Your task to perform on an android device: Open Google Chrome Image 0: 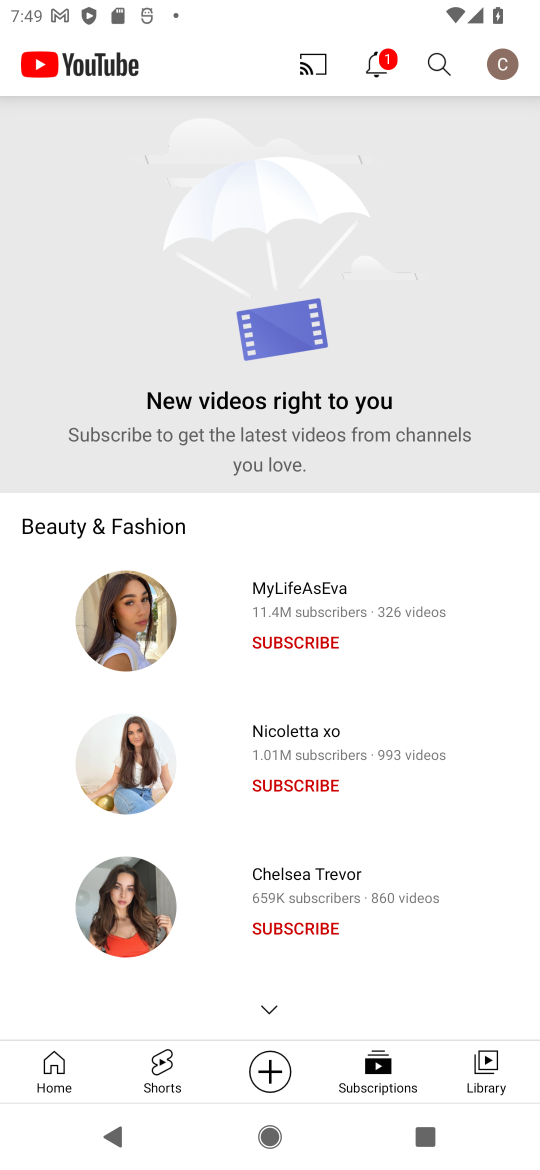
Step 0: press home button
Your task to perform on an android device: Open Google Chrome Image 1: 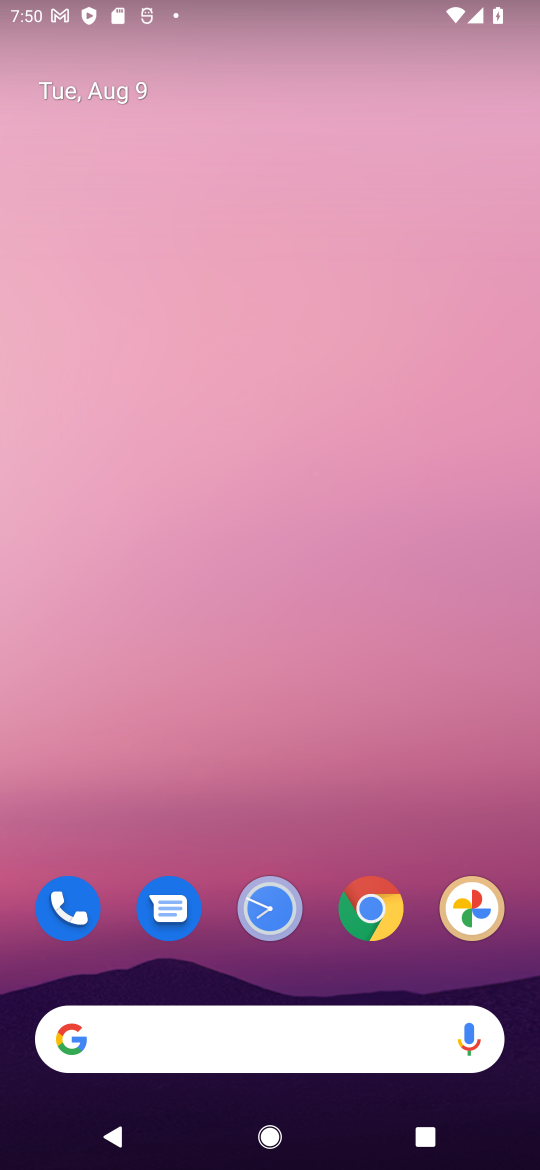
Step 1: click (371, 900)
Your task to perform on an android device: Open Google Chrome Image 2: 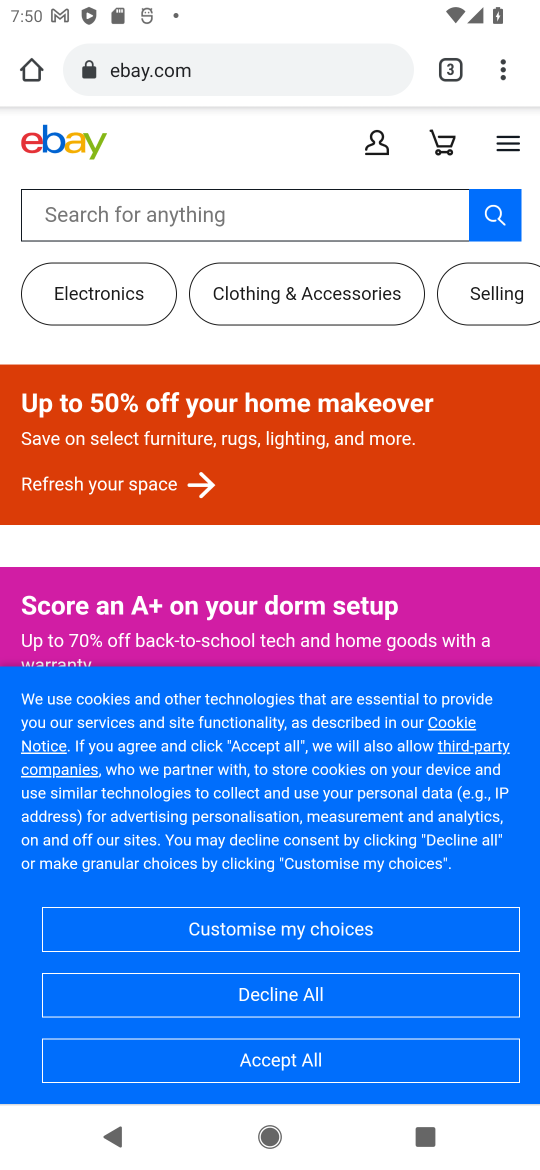
Step 2: task complete